Your task to perform on an android device: Go to eBay Image 0: 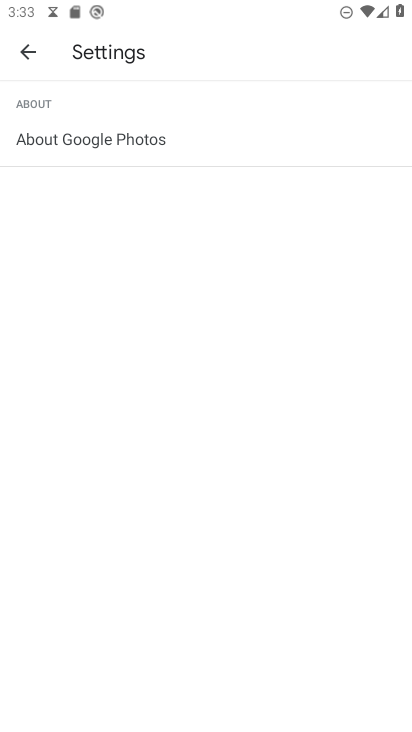
Step 0: press home button
Your task to perform on an android device: Go to eBay Image 1: 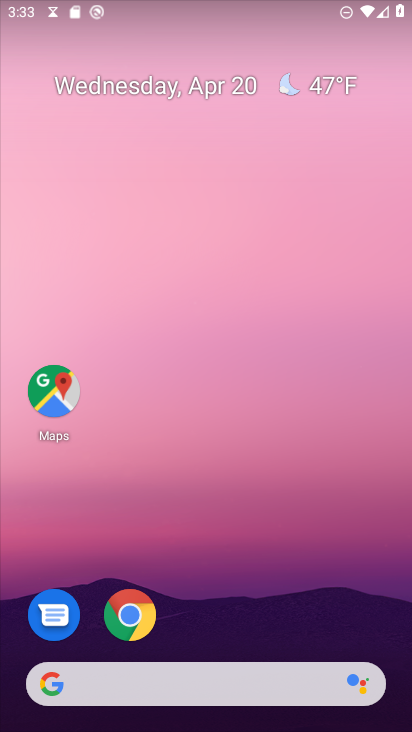
Step 1: click (135, 620)
Your task to perform on an android device: Go to eBay Image 2: 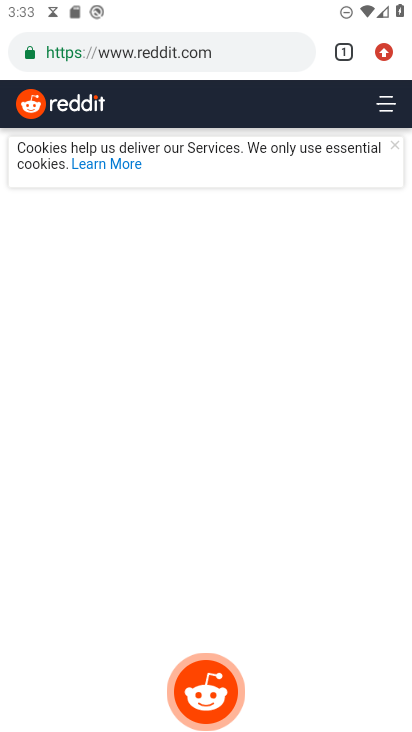
Step 2: click (340, 49)
Your task to perform on an android device: Go to eBay Image 3: 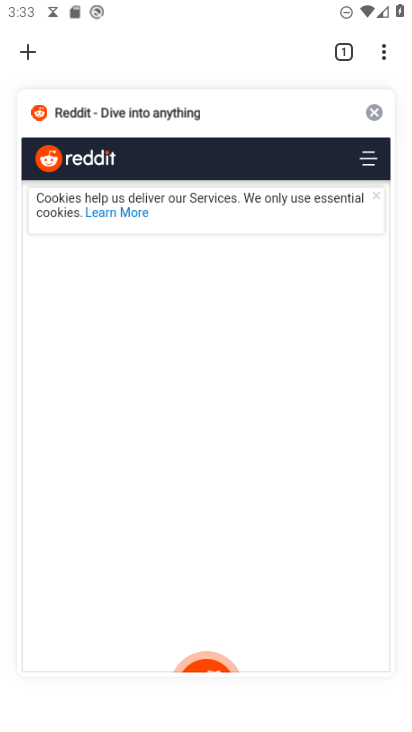
Step 3: click (22, 53)
Your task to perform on an android device: Go to eBay Image 4: 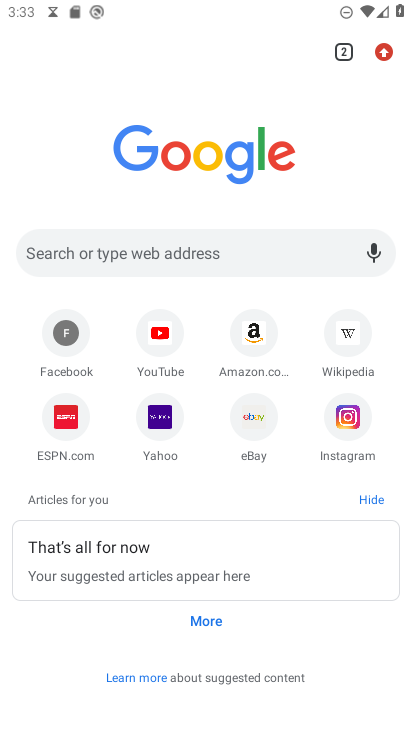
Step 4: click (253, 416)
Your task to perform on an android device: Go to eBay Image 5: 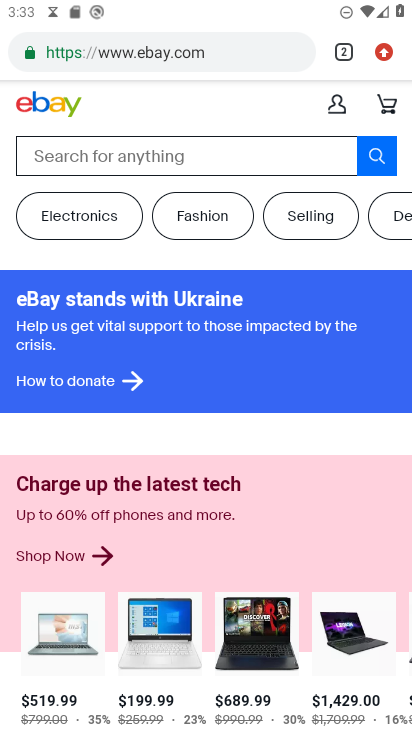
Step 5: task complete